Your task to perform on an android device: add a contact in the contacts app Image 0: 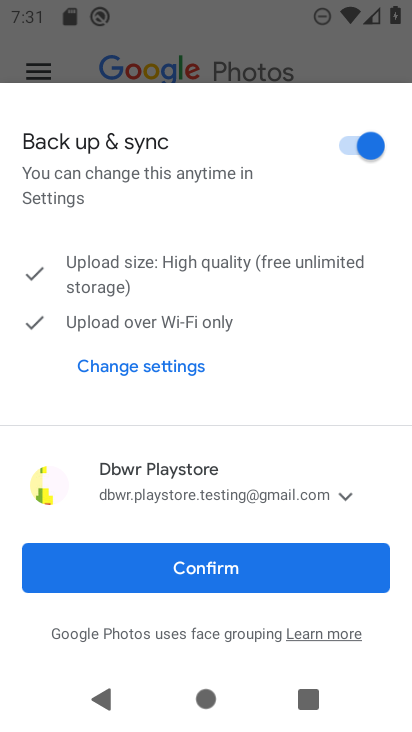
Step 0: press home button
Your task to perform on an android device: add a contact in the contacts app Image 1: 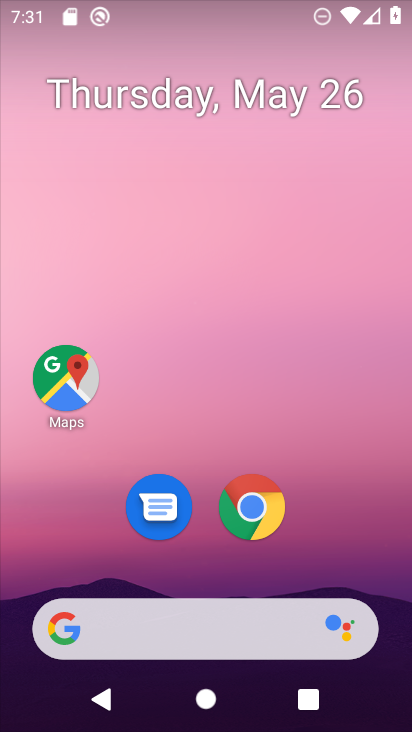
Step 1: drag from (208, 533) to (244, 91)
Your task to perform on an android device: add a contact in the contacts app Image 2: 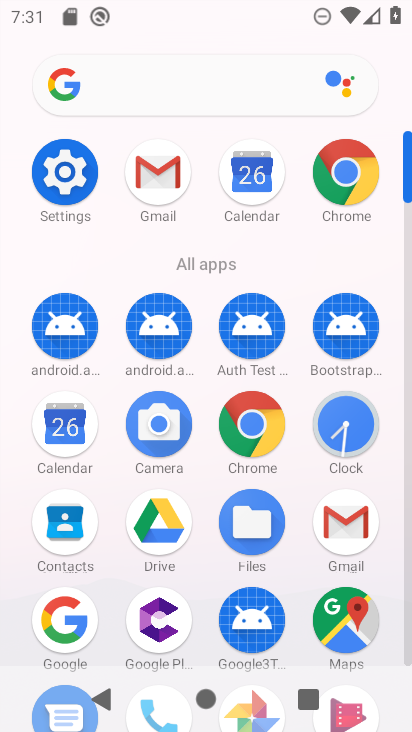
Step 2: click (65, 517)
Your task to perform on an android device: add a contact in the contacts app Image 3: 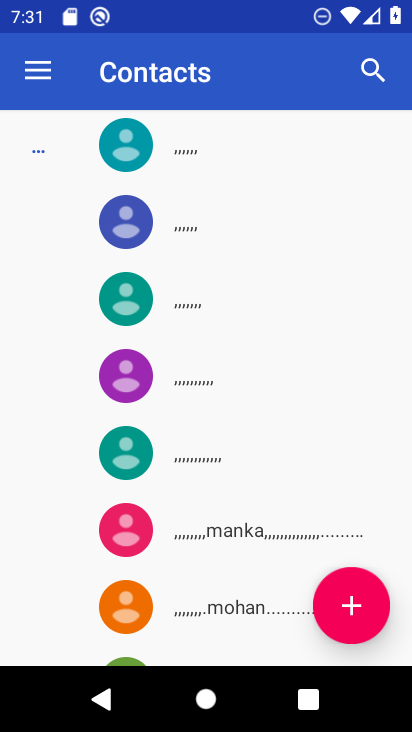
Step 3: click (343, 629)
Your task to perform on an android device: add a contact in the contacts app Image 4: 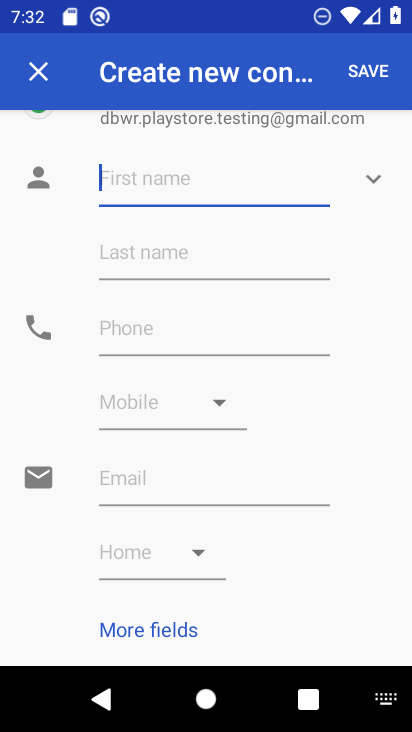
Step 4: type "Anu"
Your task to perform on an android device: add a contact in the contacts app Image 5: 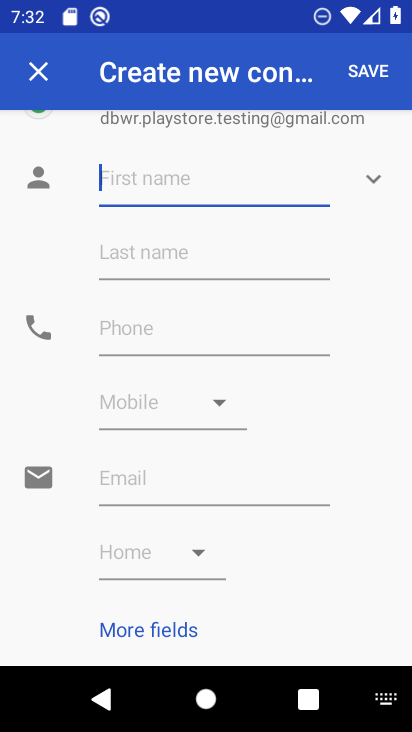
Step 5: click (233, 240)
Your task to perform on an android device: add a contact in the contacts app Image 6: 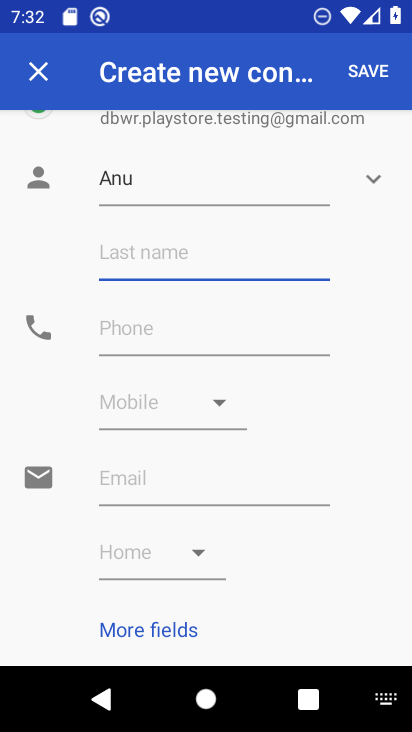
Step 6: click (228, 255)
Your task to perform on an android device: add a contact in the contacts app Image 7: 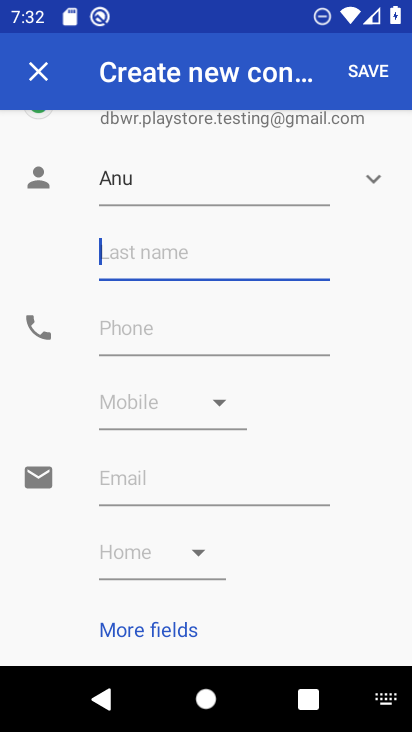
Step 7: type "Shrivastava"
Your task to perform on an android device: add a contact in the contacts app Image 8: 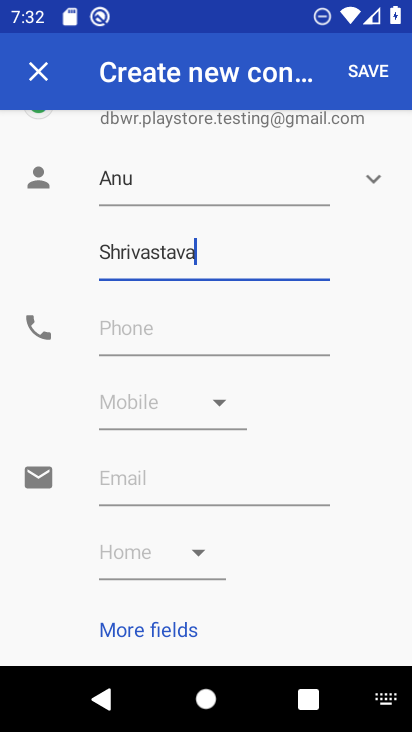
Step 8: click (207, 329)
Your task to perform on an android device: add a contact in the contacts app Image 9: 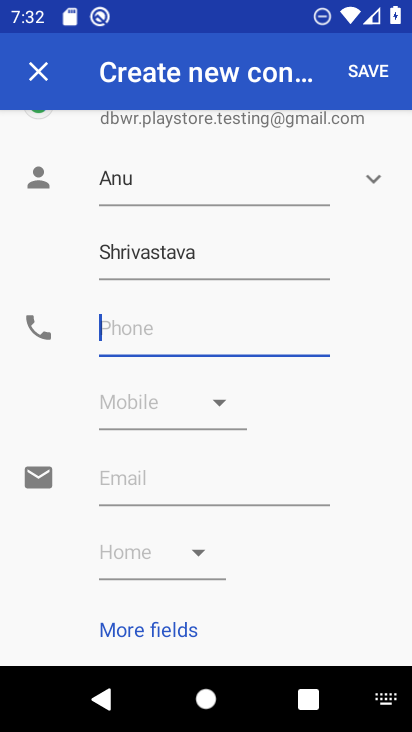
Step 9: click (143, 338)
Your task to perform on an android device: add a contact in the contacts app Image 10: 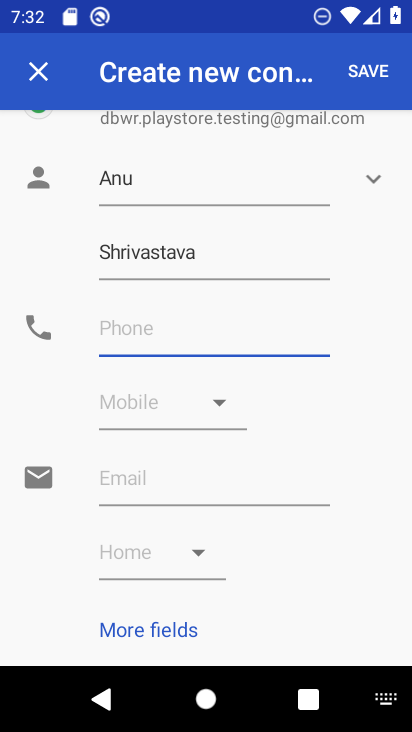
Step 10: type "9090908787"
Your task to perform on an android device: add a contact in the contacts app Image 11: 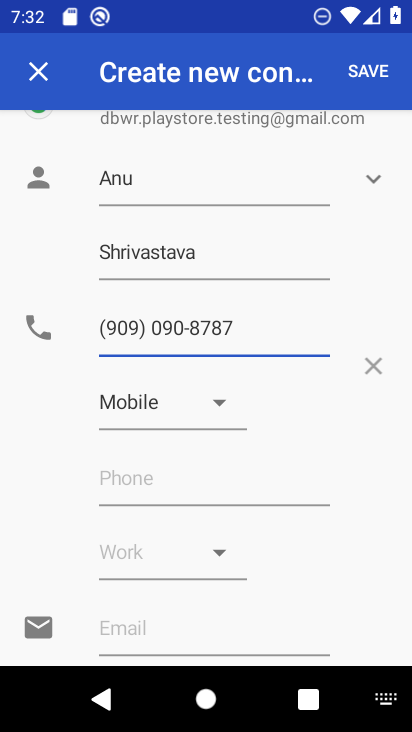
Step 11: click (362, 74)
Your task to perform on an android device: add a contact in the contacts app Image 12: 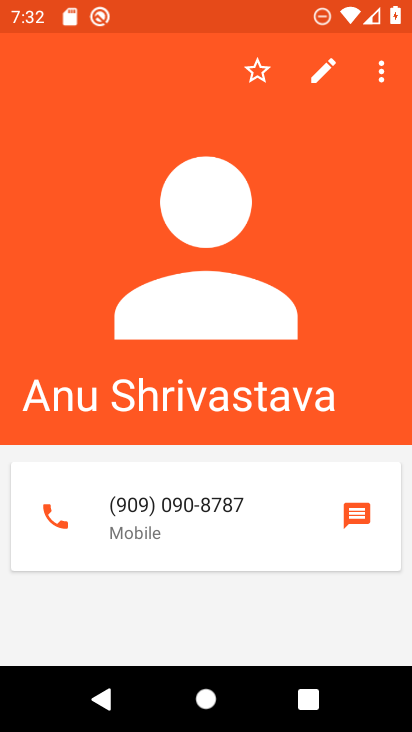
Step 12: task complete